Your task to perform on an android device: uninstall "Google Find My Device" Image 0: 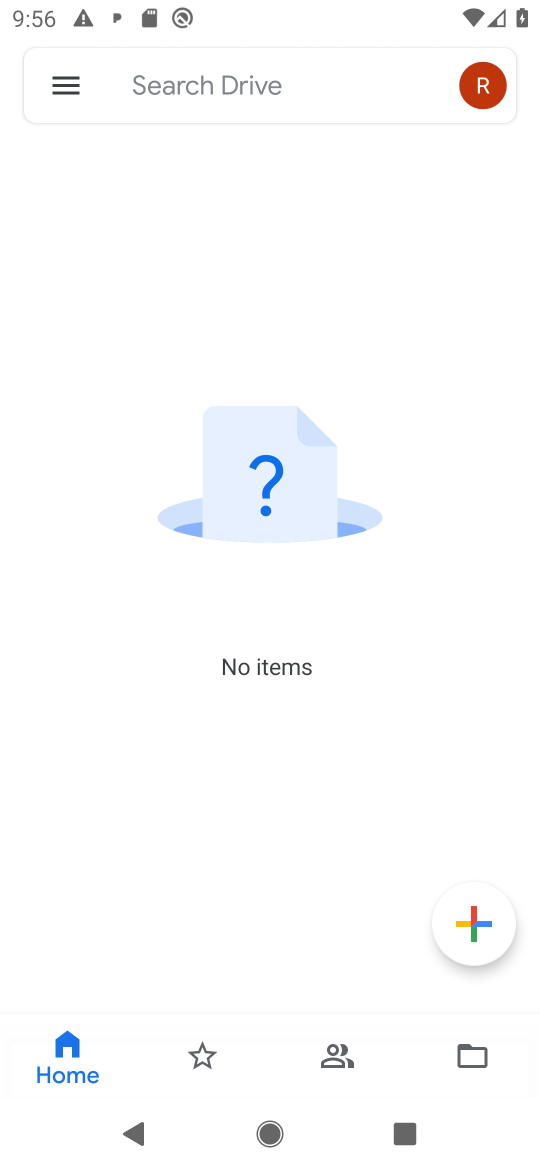
Step 0: press home button
Your task to perform on an android device: uninstall "Google Find My Device" Image 1: 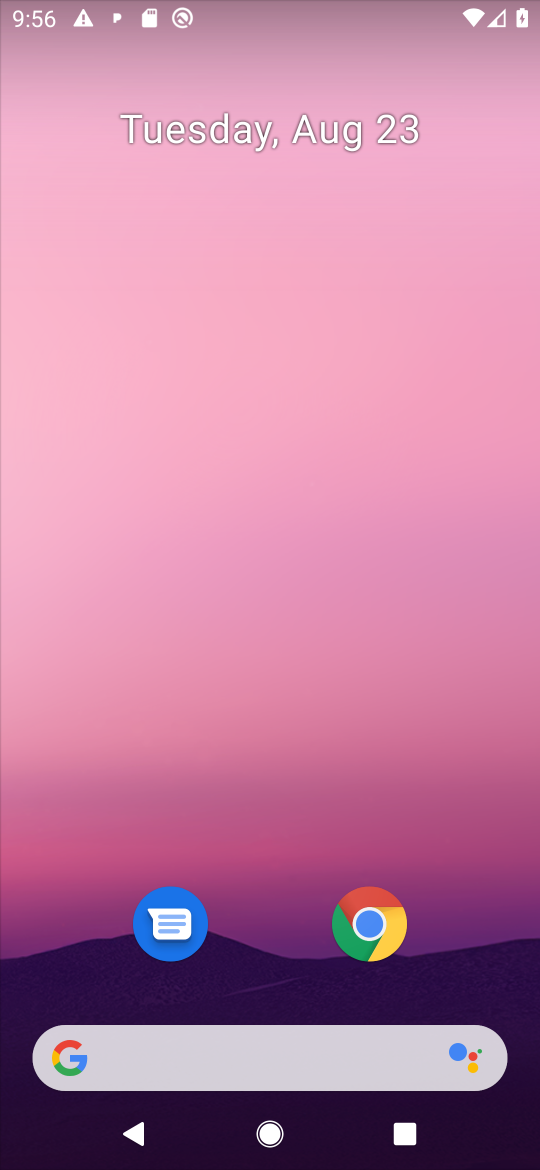
Step 1: drag from (458, 972) to (464, 73)
Your task to perform on an android device: uninstall "Google Find My Device" Image 2: 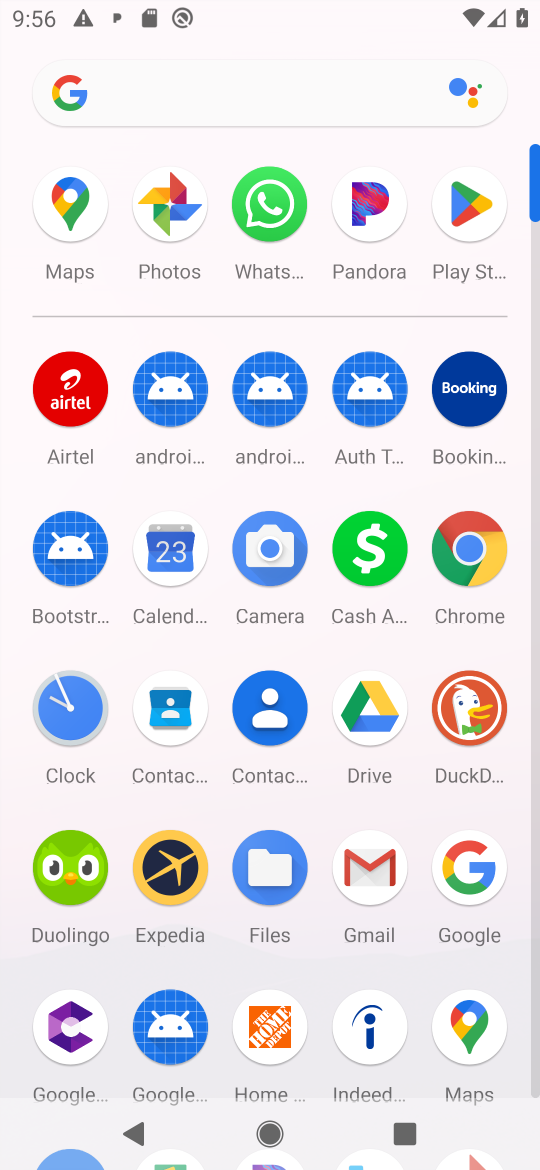
Step 2: click (469, 202)
Your task to perform on an android device: uninstall "Google Find My Device" Image 3: 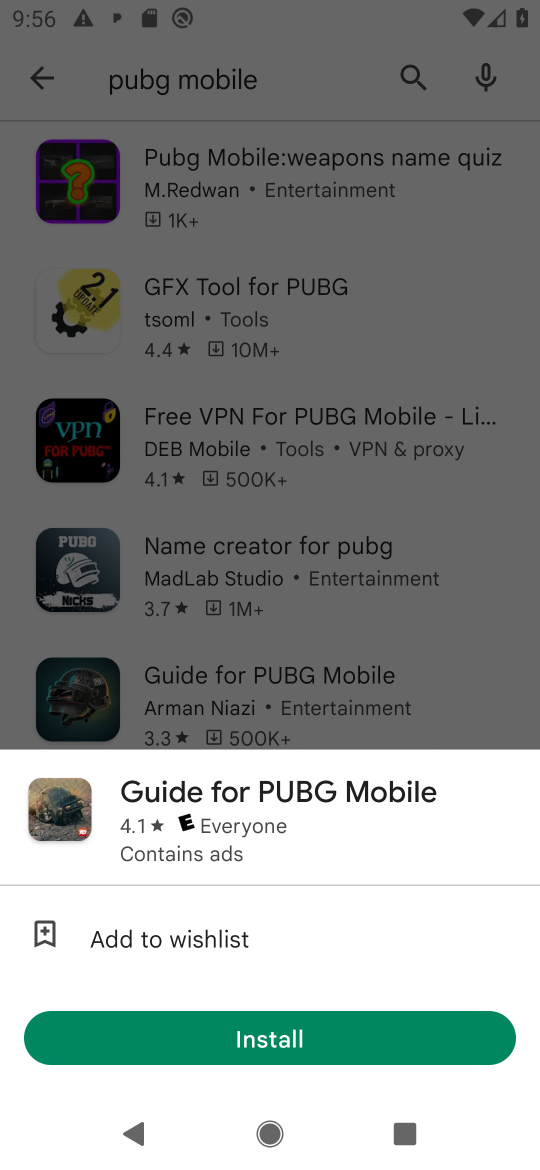
Step 3: press back button
Your task to perform on an android device: uninstall "Google Find My Device" Image 4: 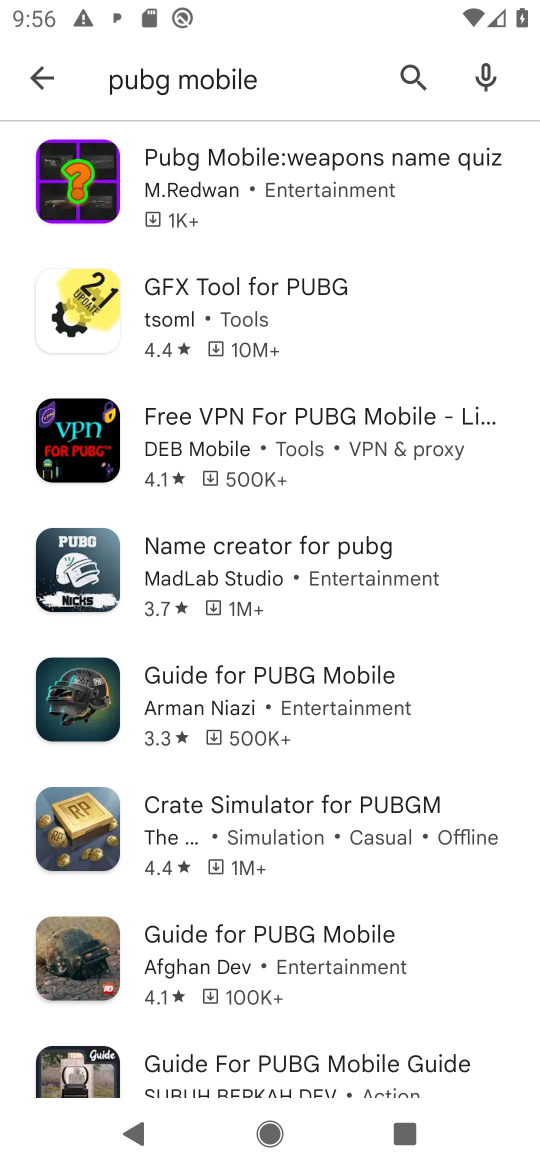
Step 4: press back button
Your task to perform on an android device: uninstall "Google Find My Device" Image 5: 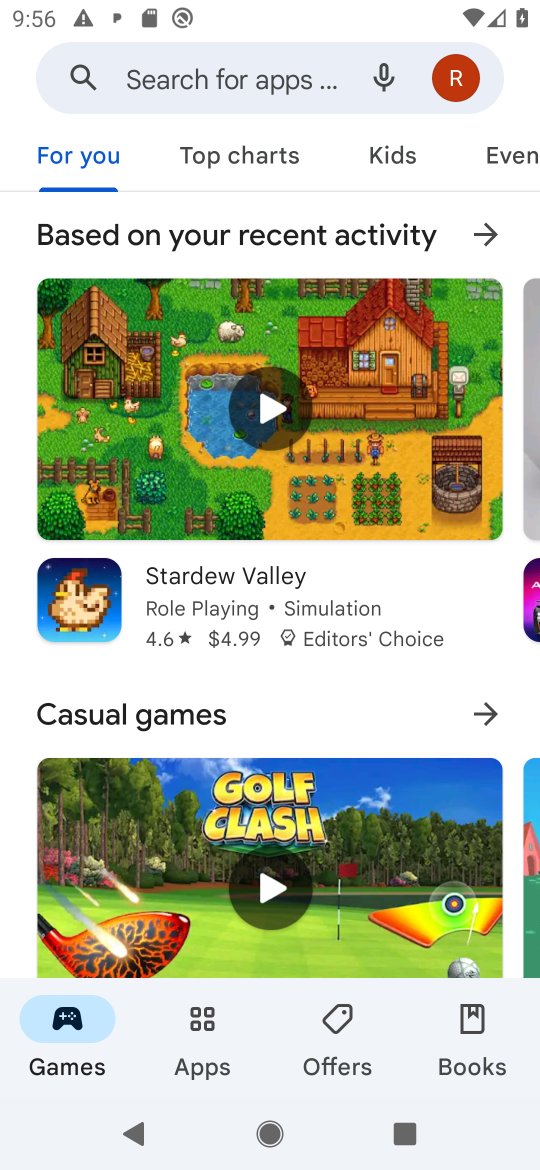
Step 5: click (274, 71)
Your task to perform on an android device: uninstall "Google Find My Device" Image 6: 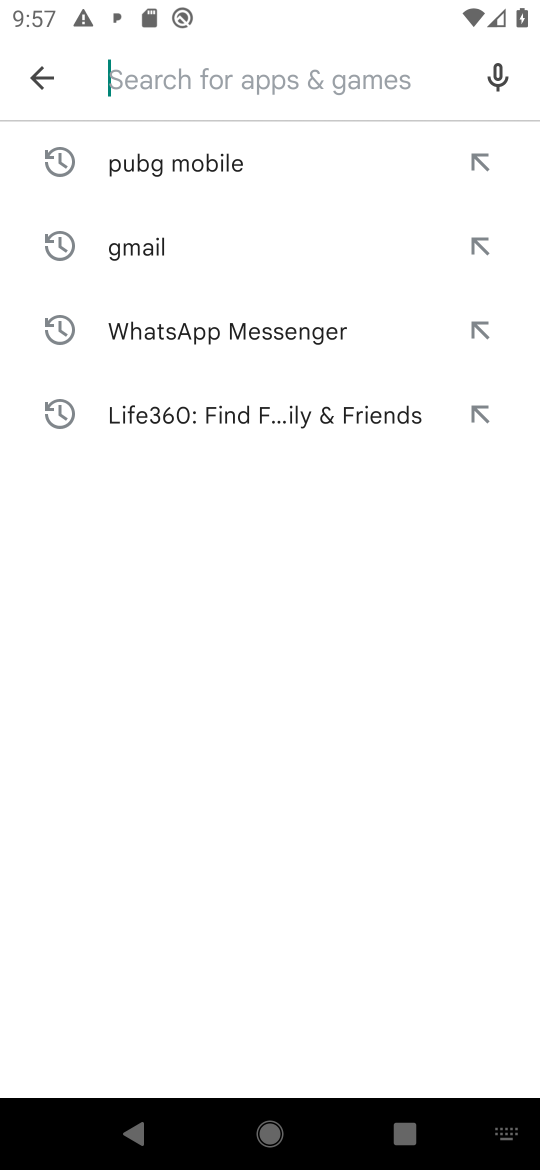
Step 6: type "Google Find My Device"
Your task to perform on an android device: uninstall "Google Find My Device" Image 7: 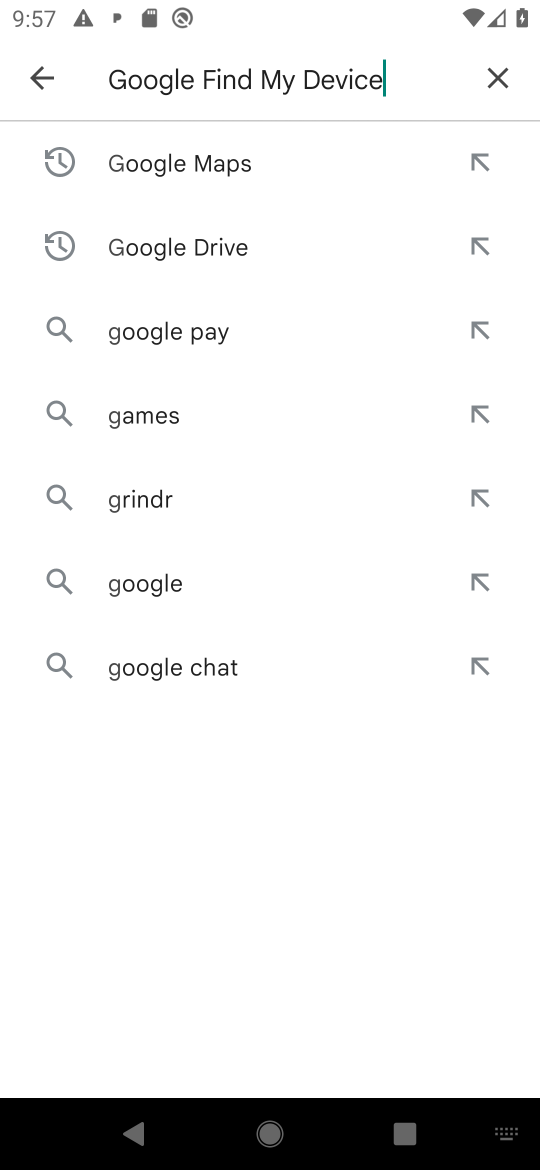
Step 7: press enter
Your task to perform on an android device: uninstall "Google Find My Device" Image 8: 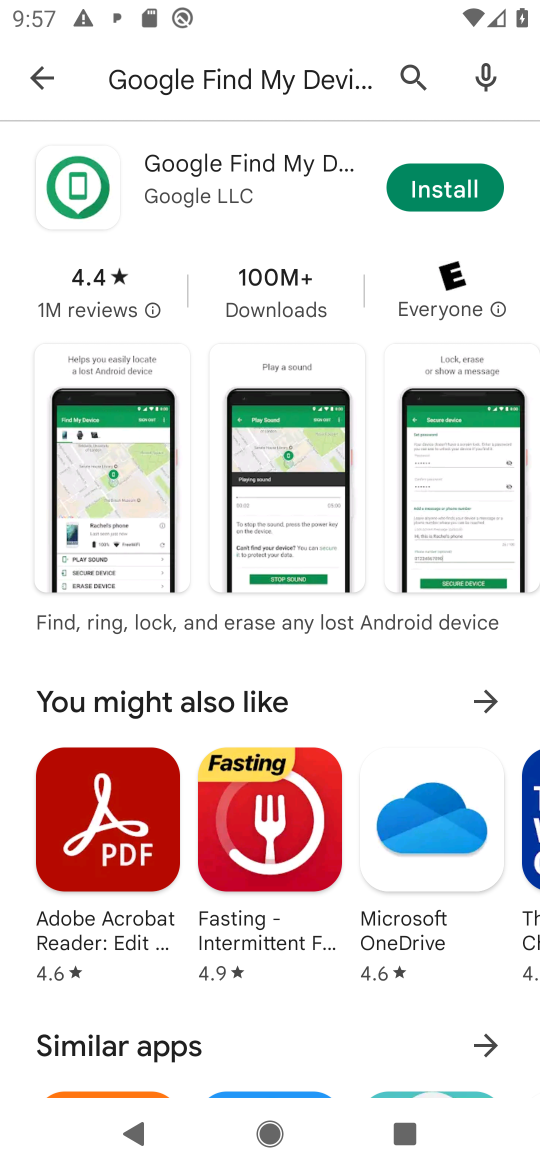
Step 8: task complete